Your task to perform on an android device: Open Amazon Image 0: 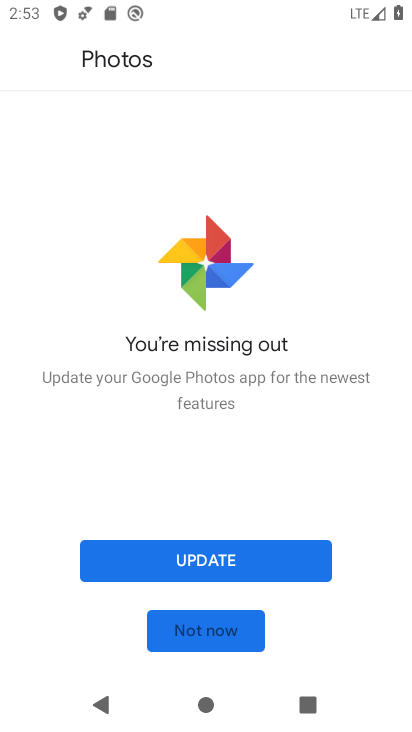
Step 0: press home button
Your task to perform on an android device: Open Amazon Image 1: 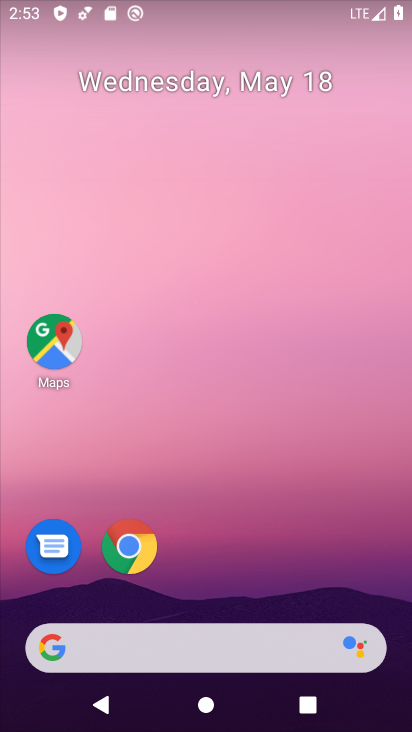
Step 1: click (131, 540)
Your task to perform on an android device: Open Amazon Image 2: 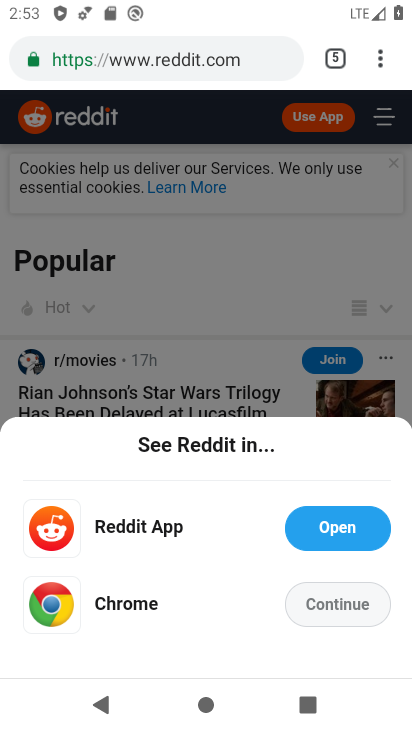
Step 2: click (380, 67)
Your task to perform on an android device: Open Amazon Image 3: 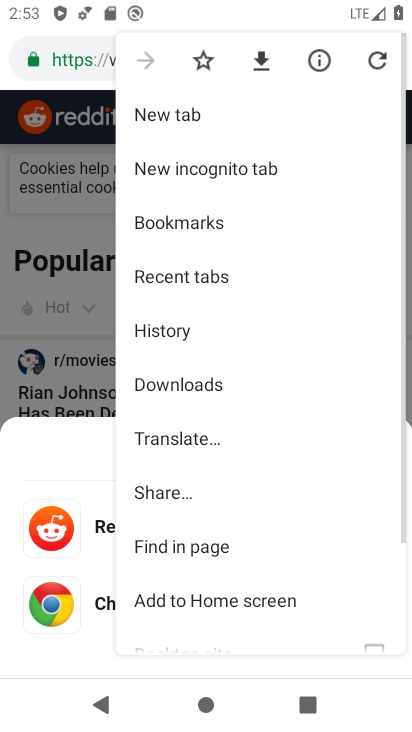
Step 3: click (190, 116)
Your task to perform on an android device: Open Amazon Image 4: 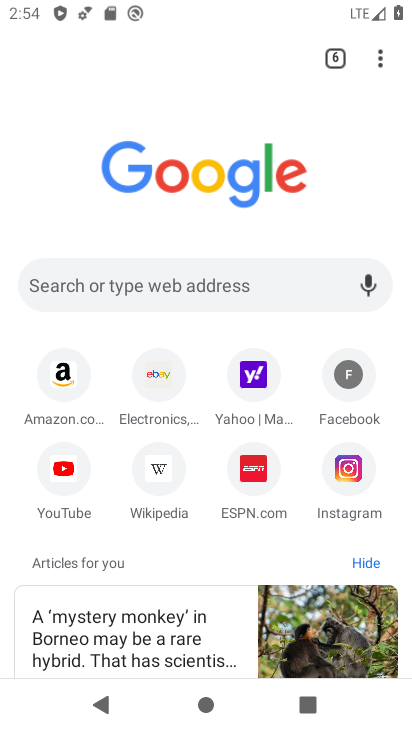
Step 4: click (54, 379)
Your task to perform on an android device: Open Amazon Image 5: 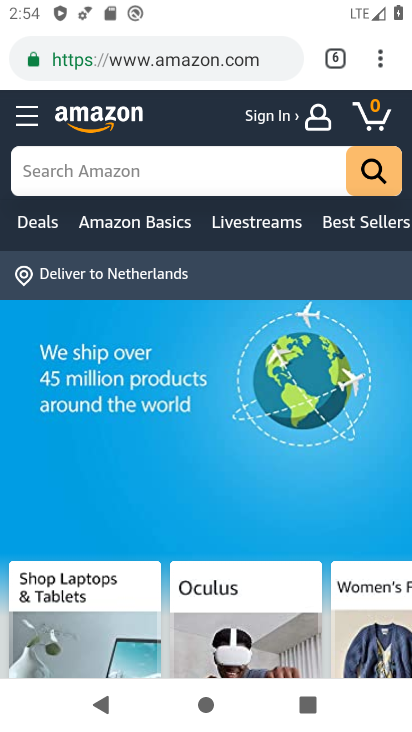
Step 5: task complete